Your task to perform on an android device: turn off notifications in google photos Image 0: 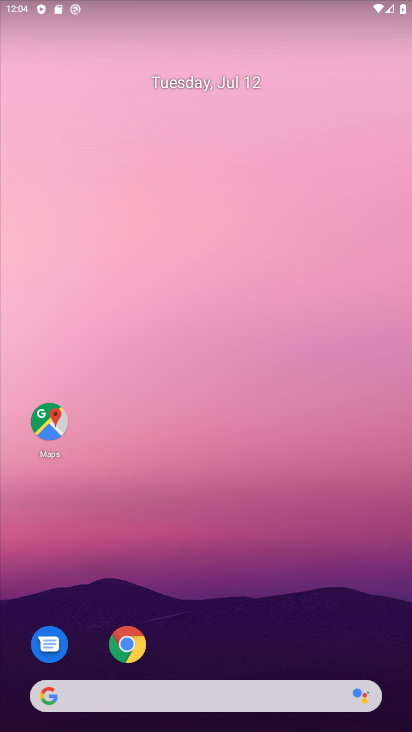
Step 0: drag from (33, 712) to (234, 269)
Your task to perform on an android device: turn off notifications in google photos Image 1: 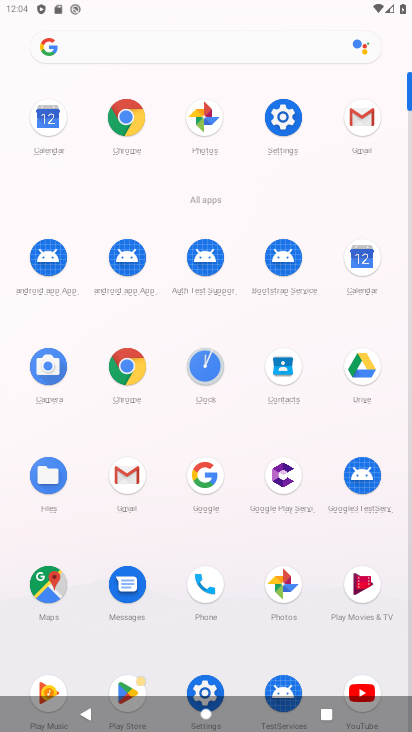
Step 1: click (277, 596)
Your task to perform on an android device: turn off notifications in google photos Image 2: 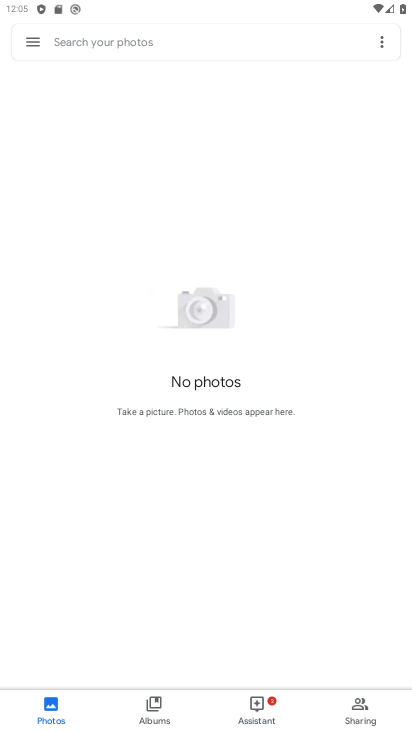
Step 2: click (34, 40)
Your task to perform on an android device: turn off notifications in google photos Image 3: 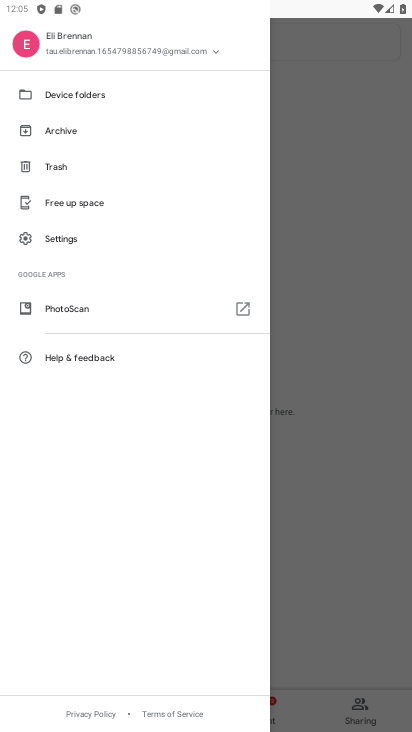
Step 3: click (347, 149)
Your task to perform on an android device: turn off notifications in google photos Image 4: 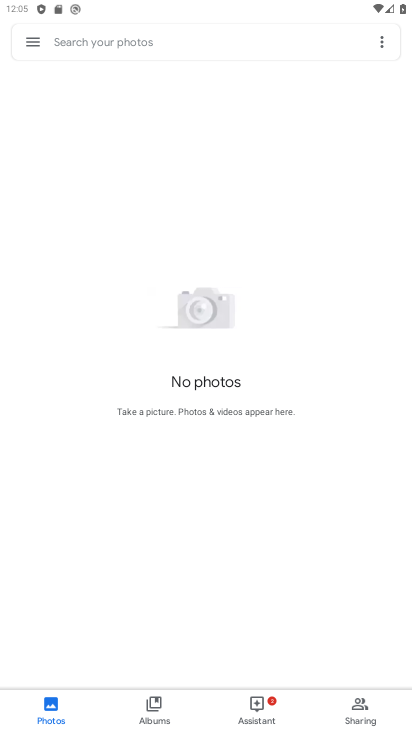
Step 4: click (23, 42)
Your task to perform on an android device: turn off notifications in google photos Image 5: 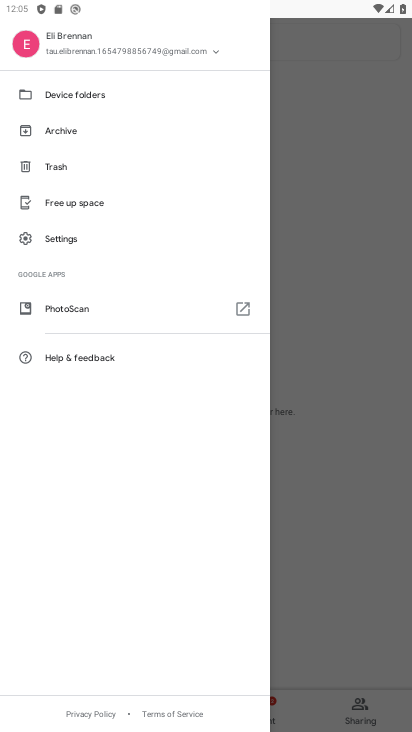
Step 5: click (69, 238)
Your task to perform on an android device: turn off notifications in google photos Image 6: 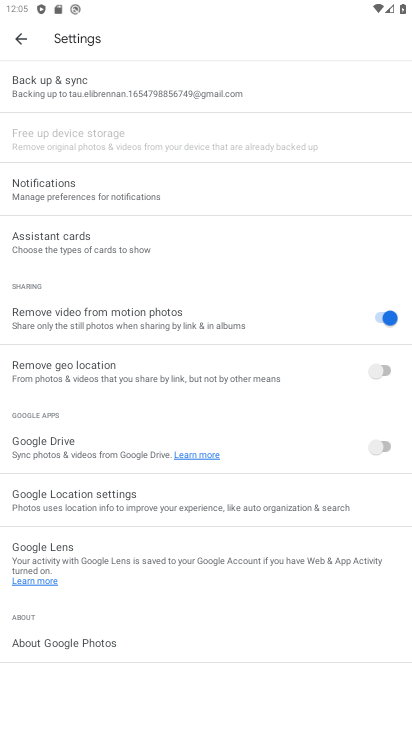
Step 6: click (77, 195)
Your task to perform on an android device: turn off notifications in google photos Image 7: 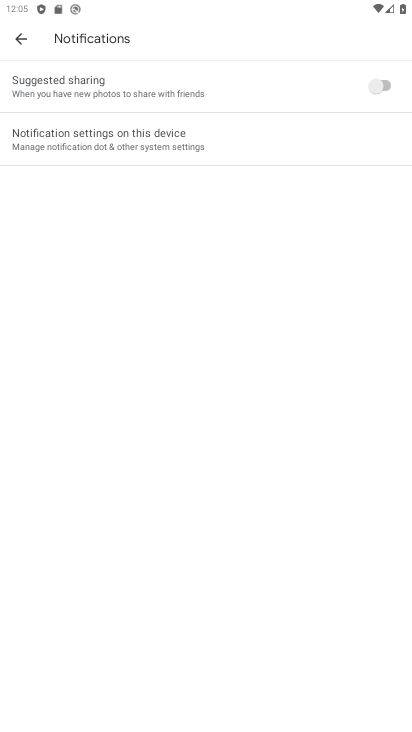
Step 7: task complete